Your task to perform on an android device: Open my contact list Image 0: 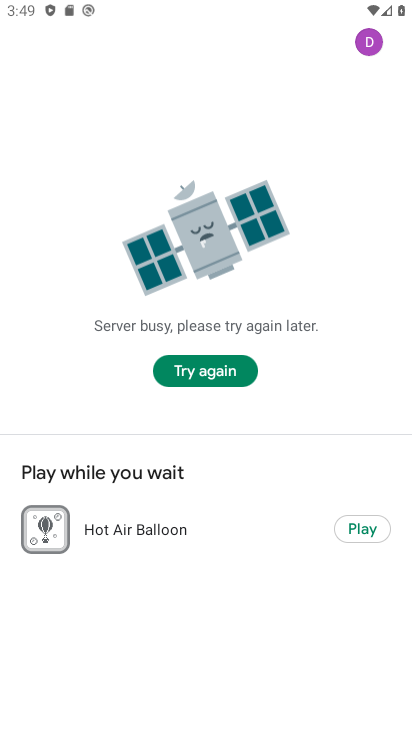
Step 0: press home button
Your task to perform on an android device: Open my contact list Image 1: 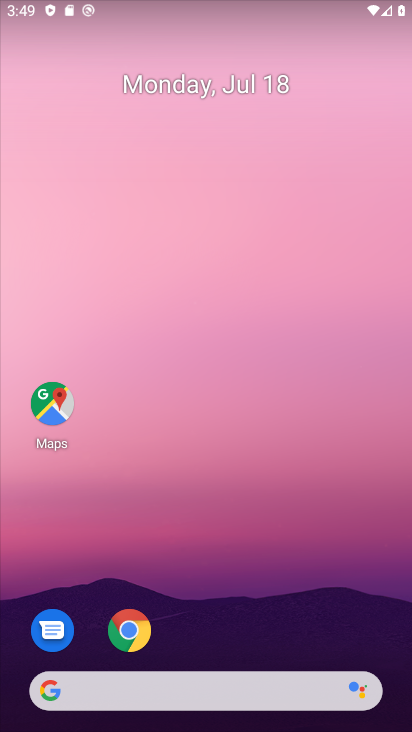
Step 1: drag from (268, 277) to (283, 0)
Your task to perform on an android device: Open my contact list Image 2: 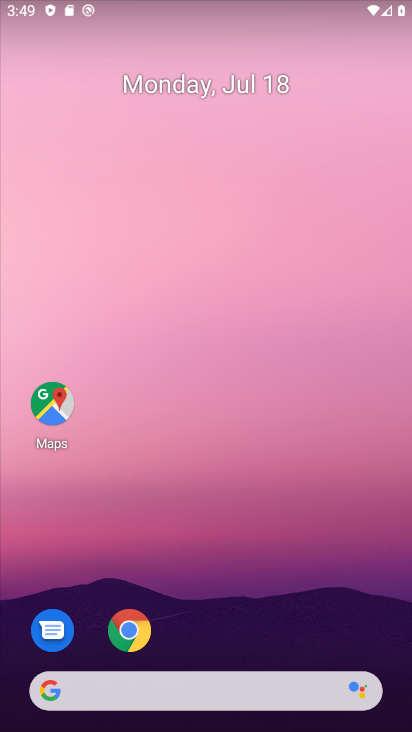
Step 2: drag from (241, 303) to (286, 45)
Your task to perform on an android device: Open my contact list Image 3: 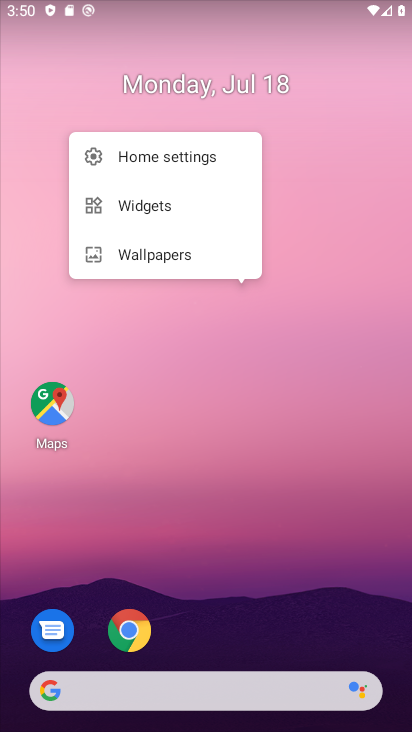
Step 3: click (291, 632)
Your task to perform on an android device: Open my contact list Image 4: 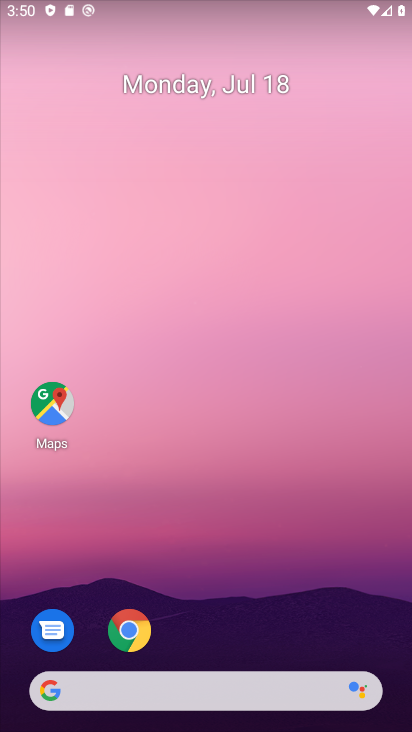
Step 4: drag from (290, 629) to (275, 49)
Your task to perform on an android device: Open my contact list Image 5: 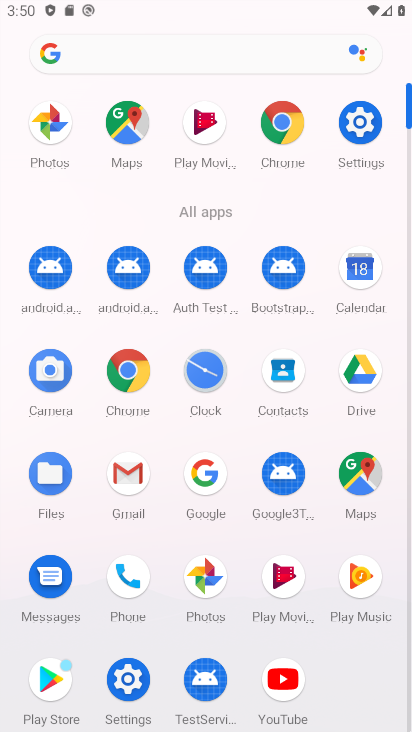
Step 5: click (277, 376)
Your task to perform on an android device: Open my contact list Image 6: 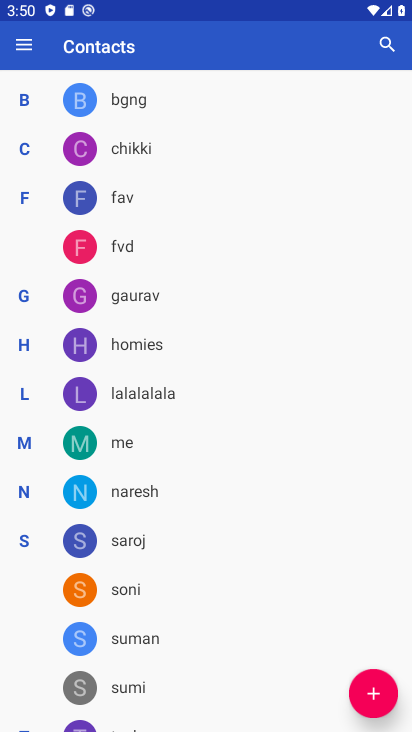
Step 6: task complete